Your task to perform on an android device: Check the news Image 0: 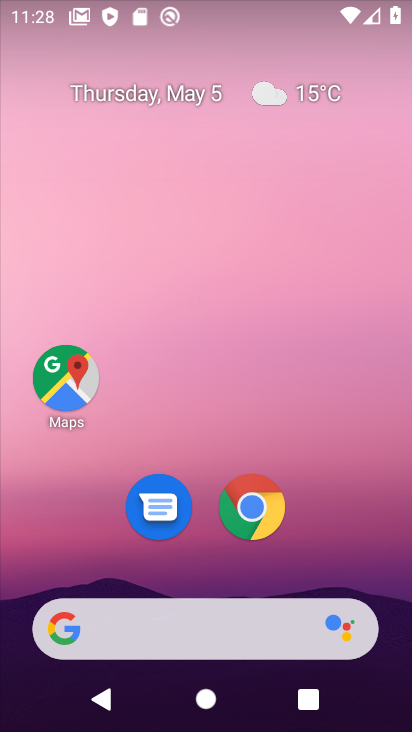
Step 0: drag from (7, 228) to (390, 307)
Your task to perform on an android device: Check the news Image 1: 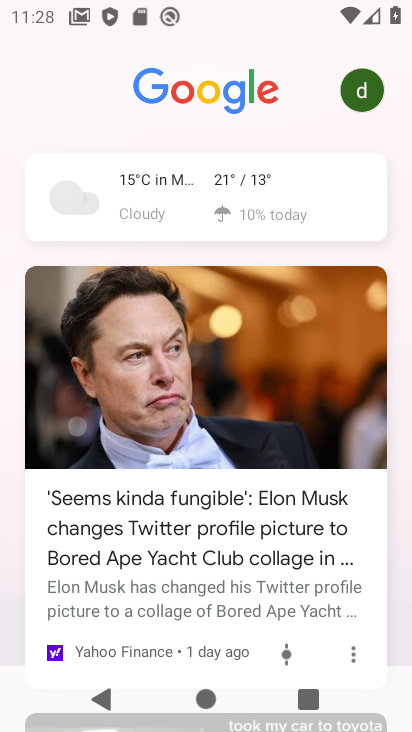
Step 1: task complete